Your task to perform on an android device: Show me popular videos on Youtube Image 0: 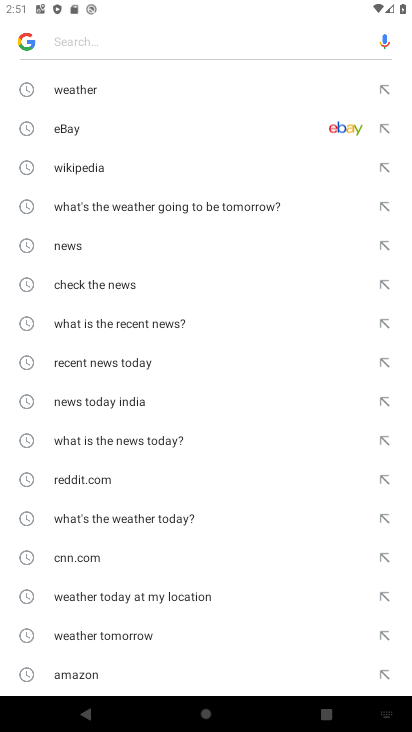
Step 0: press home button
Your task to perform on an android device: Show me popular videos on Youtube Image 1: 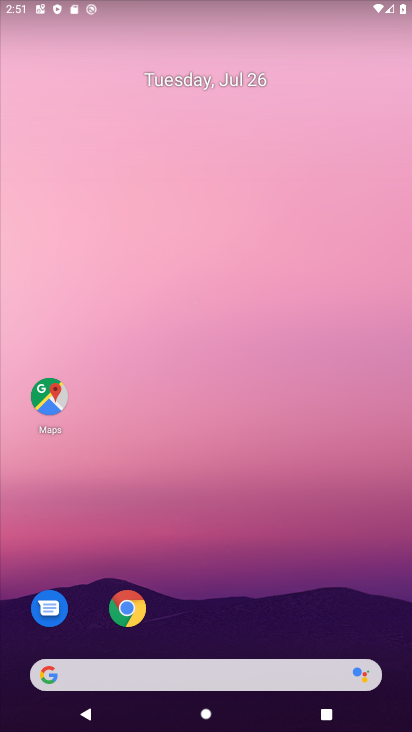
Step 1: drag from (317, 593) to (337, 366)
Your task to perform on an android device: Show me popular videos on Youtube Image 2: 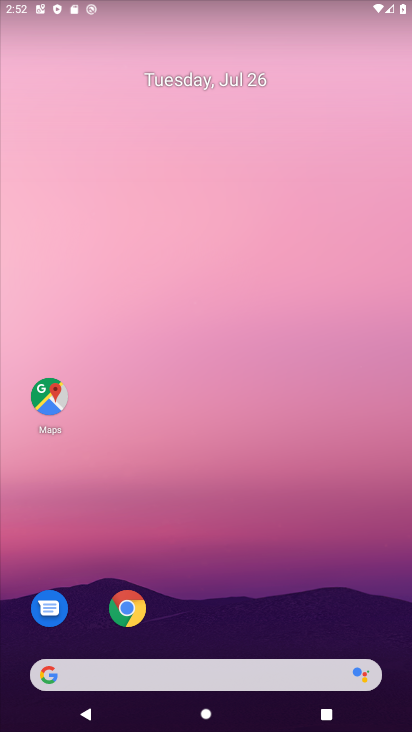
Step 2: drag from (285, 592) to (285, 139)
Your task to perform on an android device: Show me popular videos on Youtube Image 3: 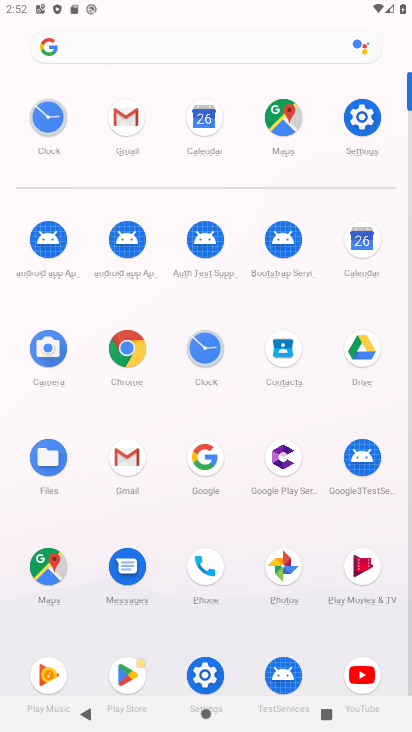
Step 3: click (362, 674)
Your task to perform on an android device: Show me popular videos on Youtube Image 4: 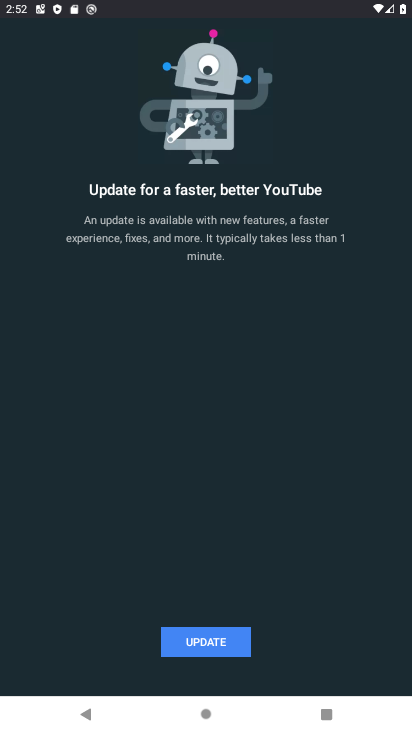
Step 4: task complete